Your task to perform on an android device: Go to Google Image 0: 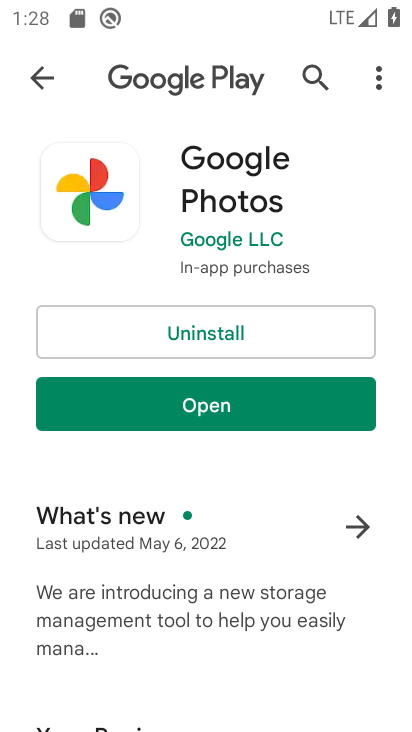
Step 0: press home button
Your task to perform on an android device: Go to Google Image 1: 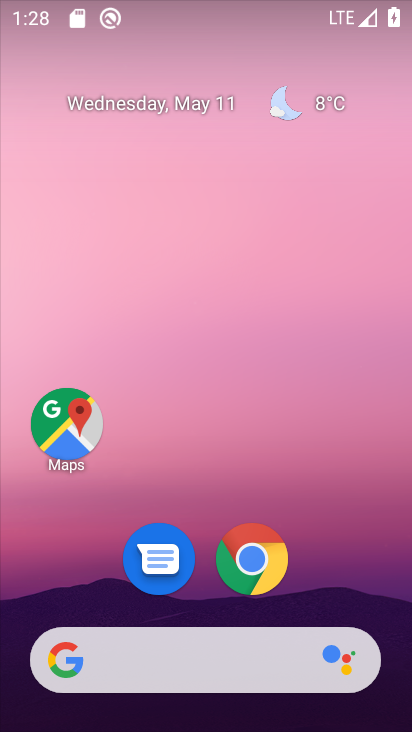
Step 1: drag from (228, 725) to (227, 145)
Your task to perform on an android device: Go to Google Image 2: 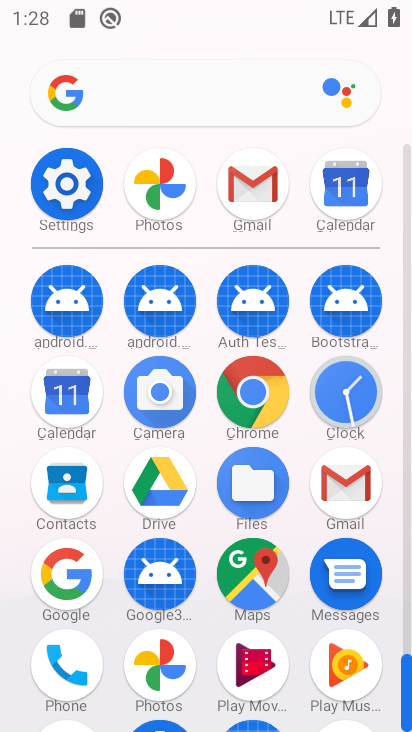
Step 2: click (78, 579)
Your task to perform on an android device: Go to Google Image 3: 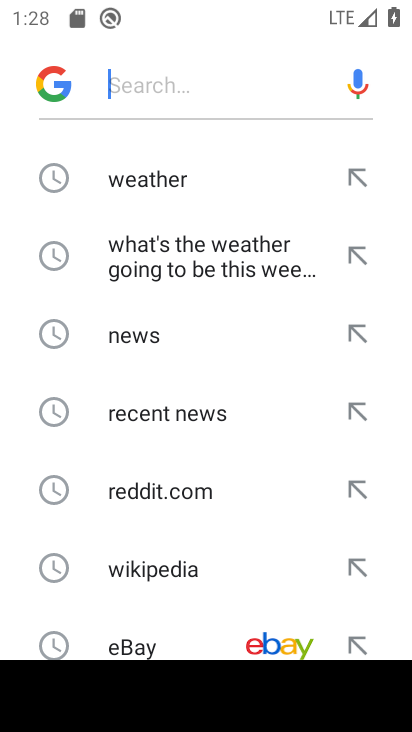
Step 3: task complete